Your task to perform on an android device: turn on showing notifications on the lock screen Image 0: 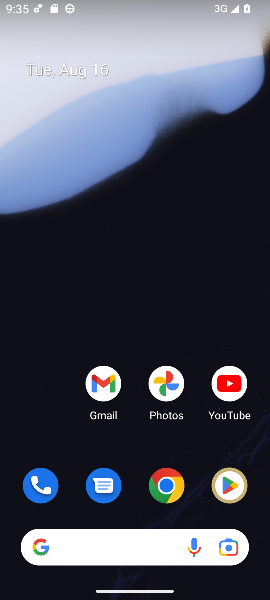
Step 0: drag from (191, 456) to (124, 49)
Your task to perform on an android device: turn on showing notifications on the lock screen Image 1: 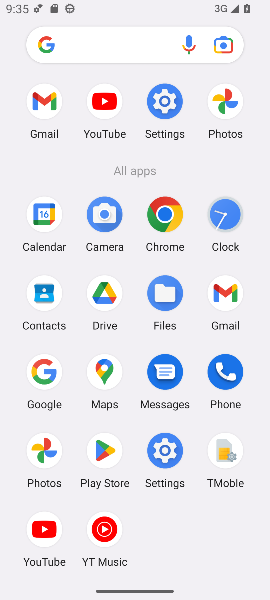
Step 1: click (167, 110)
Your task to perform on an android device: turn on showing notifications on the lock screen Image 2: 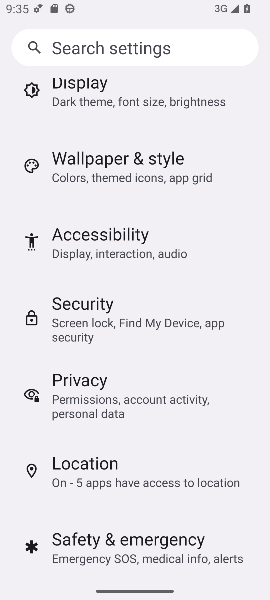
Step 2: drag from (88, 122) to (85, 406)
Your task to perform on an android device: turn on showing notifications on the lock screen Image 3: 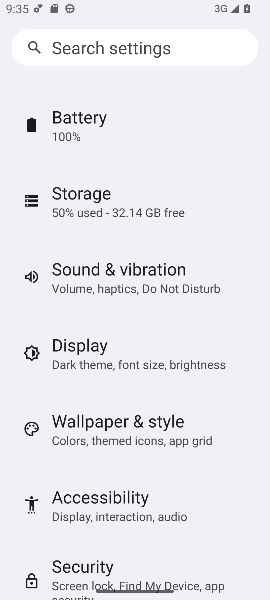
Step 3: drag from (76, 250) to (64, 573)
Your task to perform on an android device: turn on showing notifications on the lock screen Image 4: 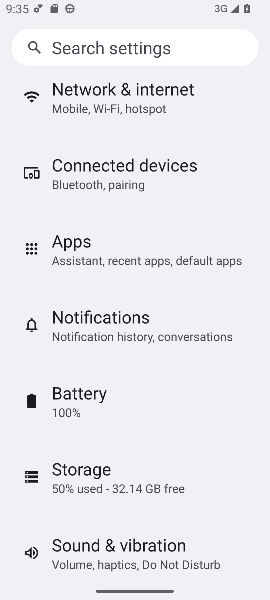
Step 4: click (152, 317)
Your task to perform on an android device: turn on showing notifications on the lock screen Image 5: 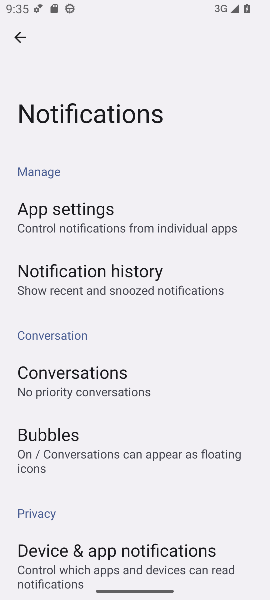
Step 5: drag from (129, 524) to (111, 283)
Your task to perform on an android device: turn on showing notifications on the lock screen Image 6: 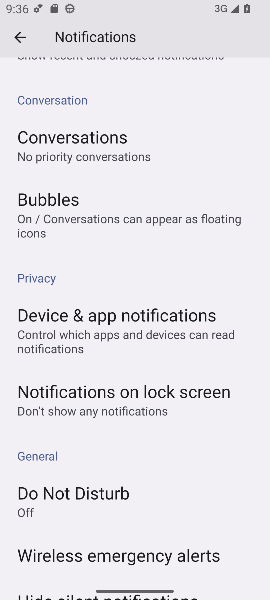
Step 6: click (158, 396)
Your task to perform on an android device: turn on showing notifications on the lock screen Image 7: 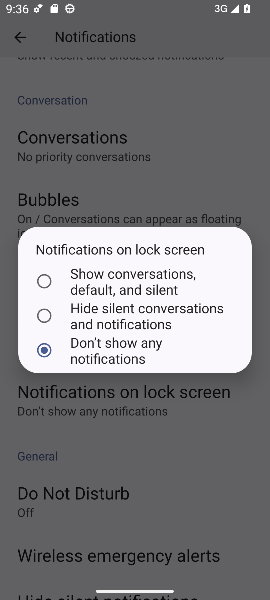
Step 7: click (44, 278)
Your task to perform on an android device: turn on showing notifications on the lock screen Image 8: 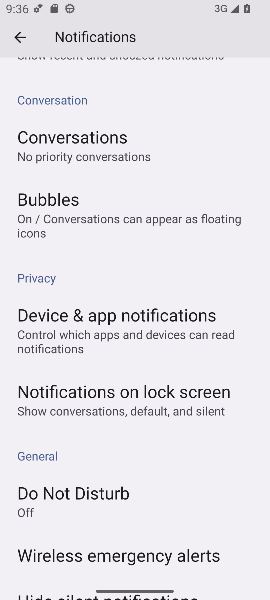
Step 8: task complete